Your task to perform on an android device: How much does a 3 bedroom apartment rent for in Houston? Image 0: 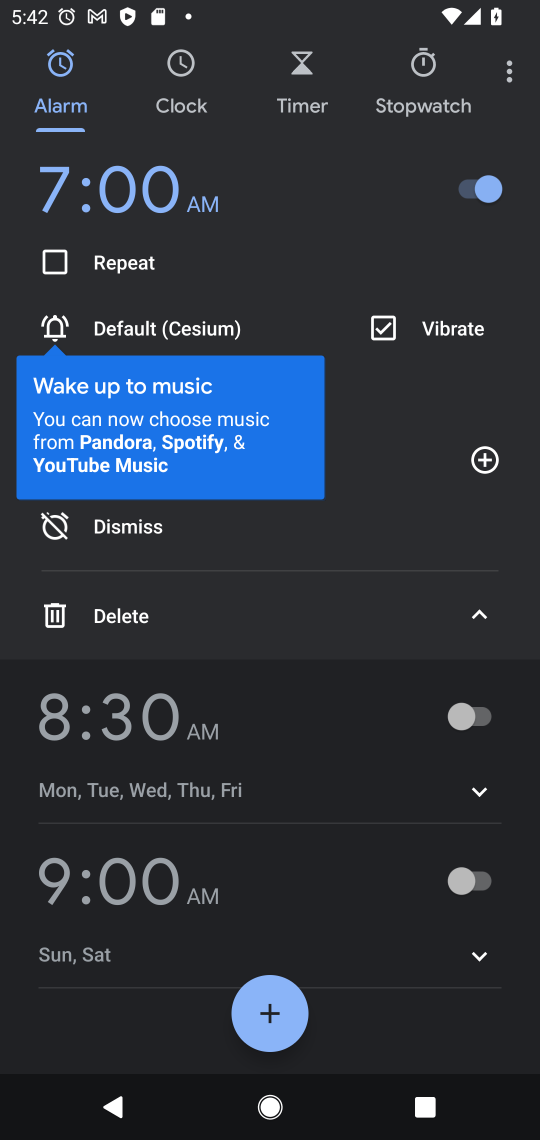
Step 0: press home button
Your task to perform on an android device: How much does a 3 bedroom apartment rent for in Houston? Image 1: 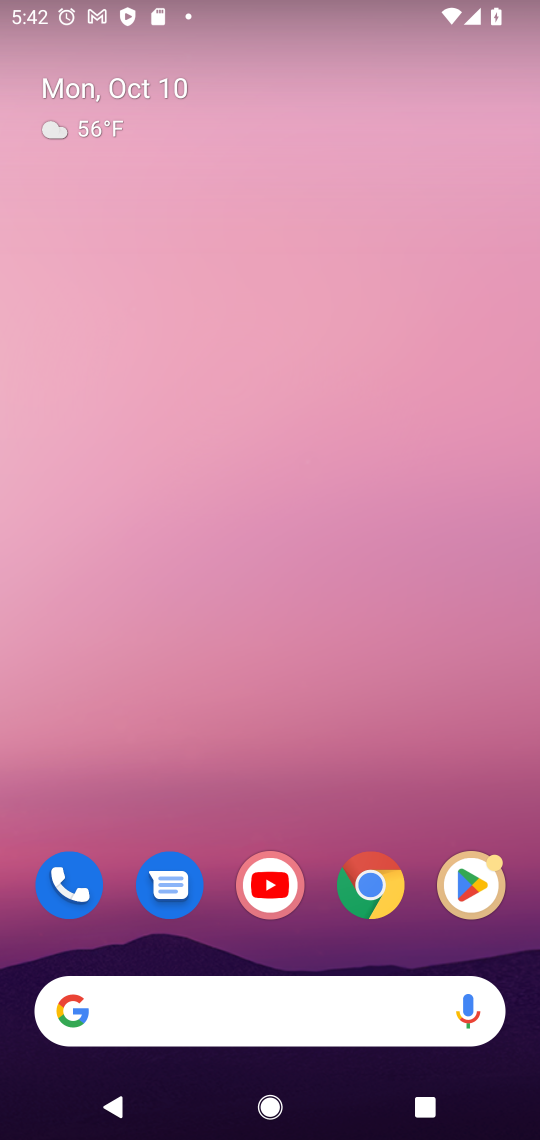
Step 1: click (268, 1008)
Your task to perform on an android device: How much does a 3 bedroom apartment rent for in Houston? Image 2: 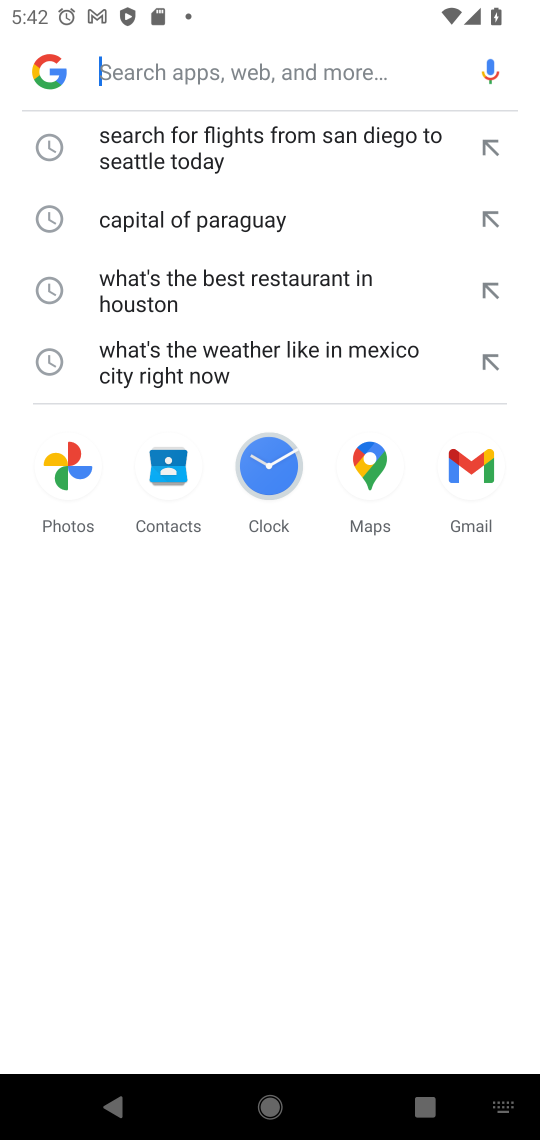
Step 2: type "How much does a 3 bedroom apartment rent for in Houston?"
Your task to perform on an android device: How much does a 3 bedroom apartment rent for in Houston? Image 3: 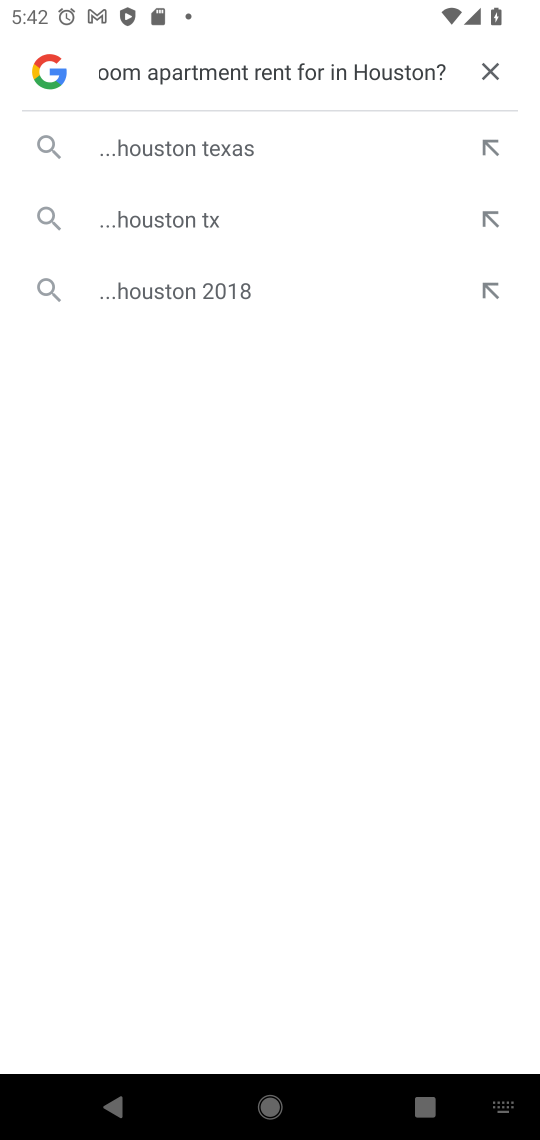
Step 3: click (202, 213)
Your task to perform on an android device: How much does a 3 bedroom apartment rent for in Houston? Image 4: 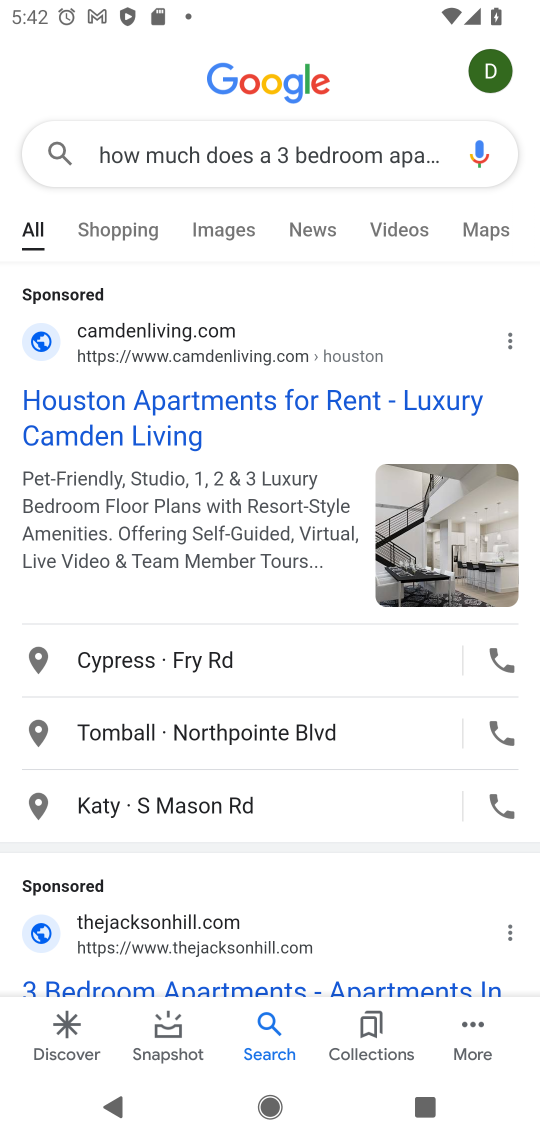
Step 4: click (162, 395)
Your task to perform on an android device: How much does a 3 bedroom apartment rent for in Houston? Image 5: 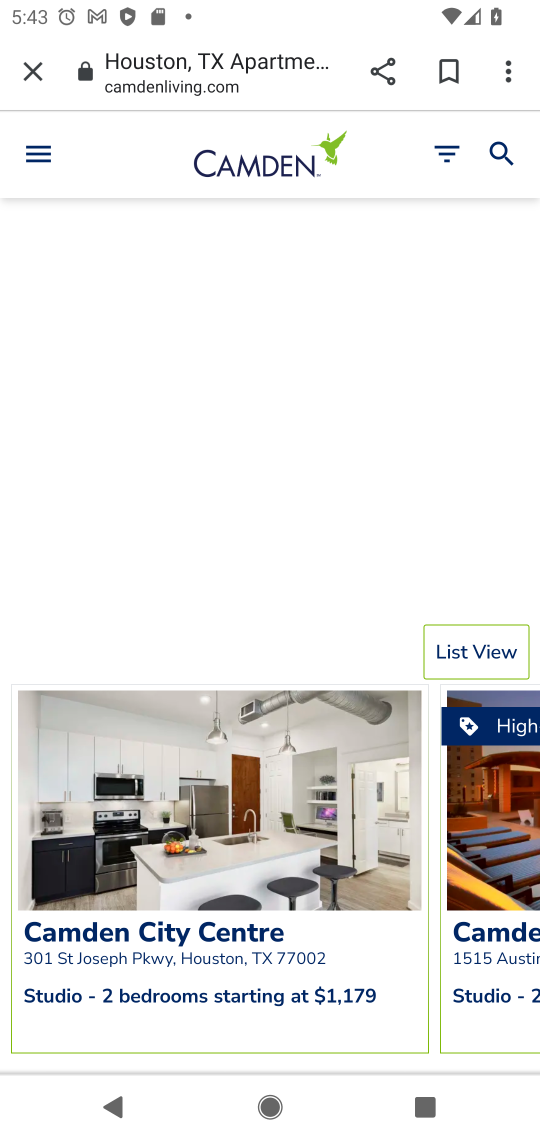
Step 5: task complete